Your task to perform on an android device: toggle notification dots Image 0: 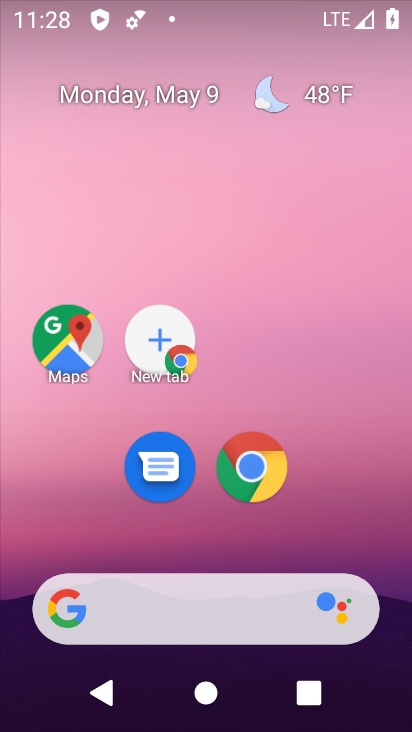
Step 0: drag from (302, 465) to (173, 0)
Your task to perform on an android device: toggle notification dots Image 1: 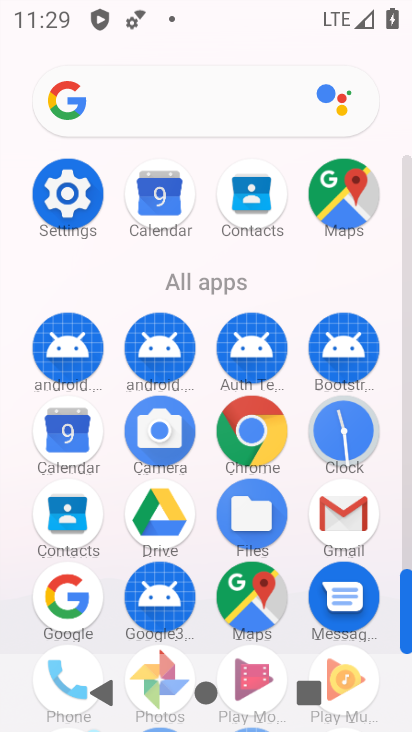
Step 1: click (59, 200)
Your task to perform on an android device: toggle notification dots Image 2: 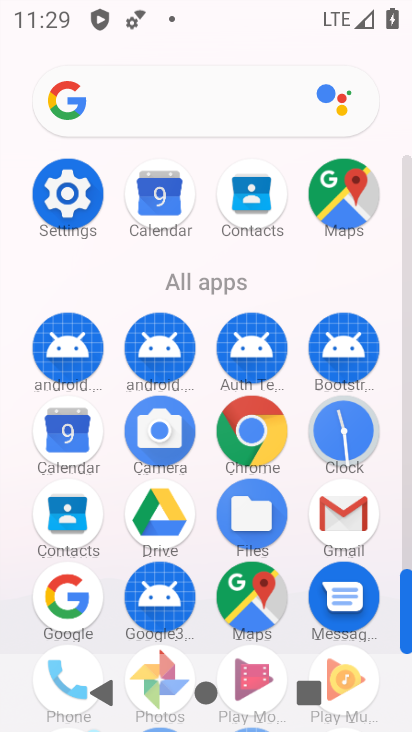
Step 2: click (59, 200)
Your task to perform on an android device: toggle notification dots Image 3: 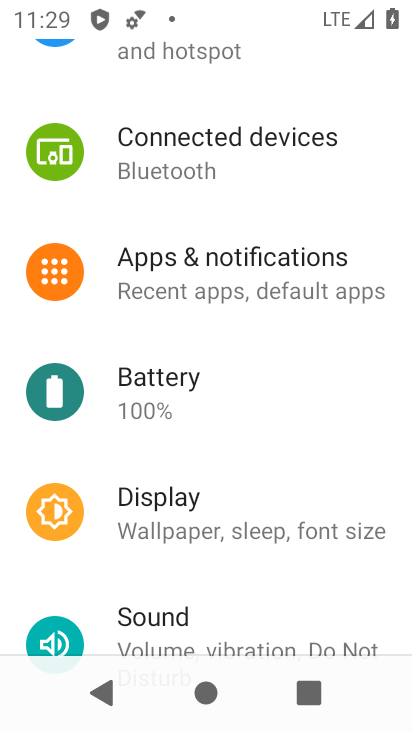
Step 3: click (256, 270)
Your task to perform on an android device: toggle notification dots Image 4: 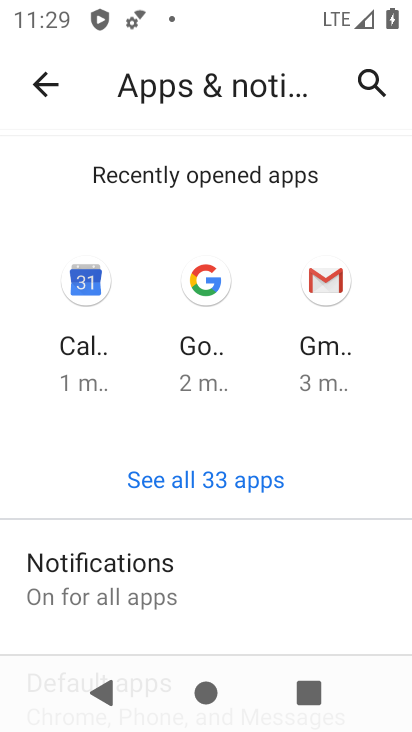
Step 4: click (134, 561)
Your task to perform on an android device: toggle notification dots Image 5: 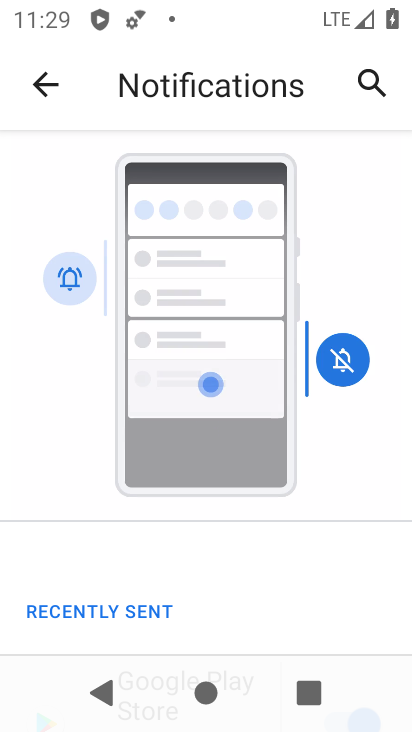
Step 5: drag from (222, 582) to (116, 164)
Your task to perform on an android device: toggle notification dots Image 6: 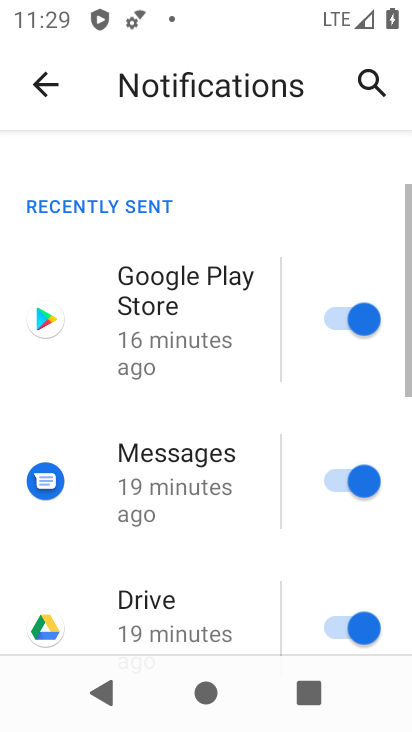
Step 6: click (182, 94)
Your task to perform on an android device: toggle notification dots Image 7: 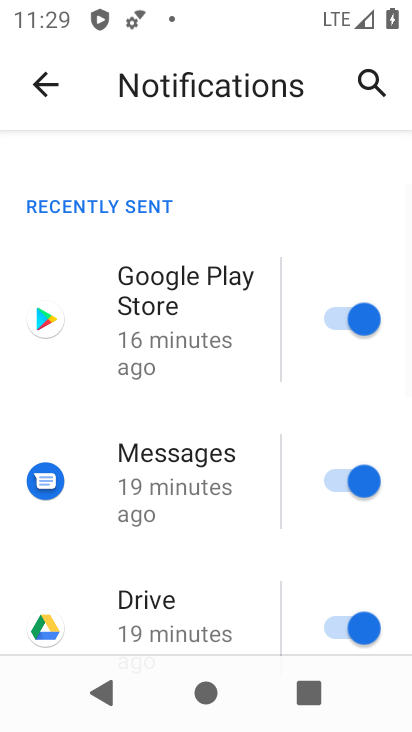
Step 7: click (274, 130)
Your task to perform on an android device: toggle notification dots Image 8: 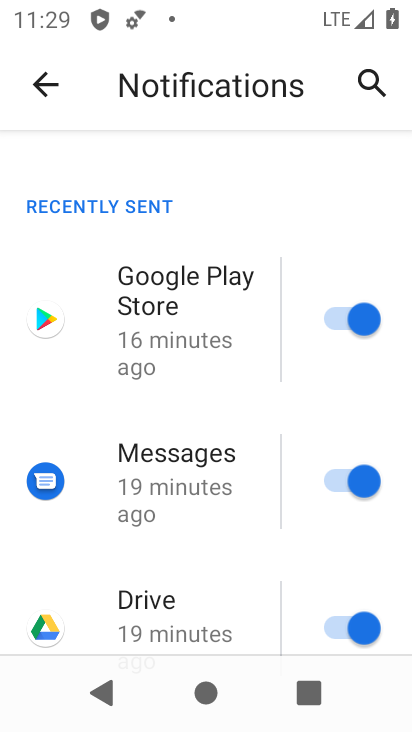
Step 8: drag from (301, 82) to (211, 92)
Your task to perform on an android device: toggle notification dots Image 9: 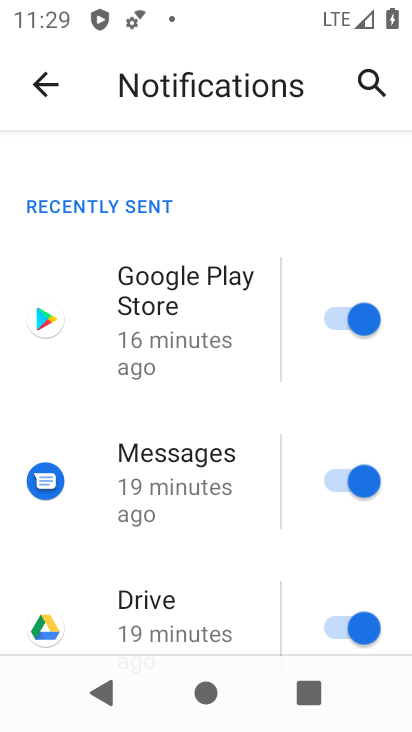
Step 9: drag from (188, 317) to (175, 216)
Your task to perform on an android device: toggle notification dots Image 10: 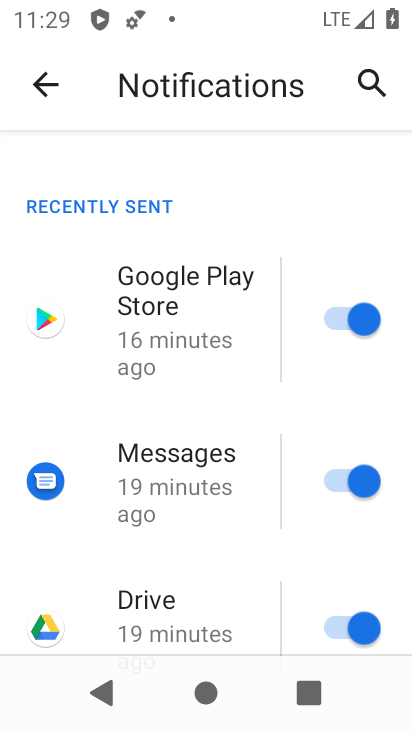
Step 10: drag from (139, 85) to (181, 68)
Your task to perform on an android device: toggle notification dots Image 11: 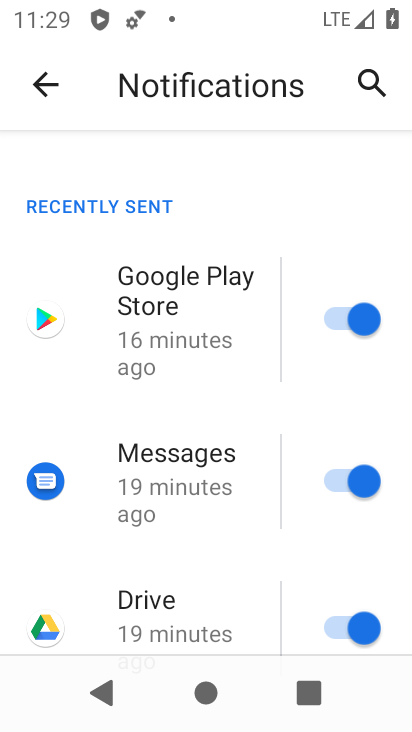
Step 11: drag from (244, 399) to (228, 107)
Your task to perform on an android device: toggle notification dots Image 12: 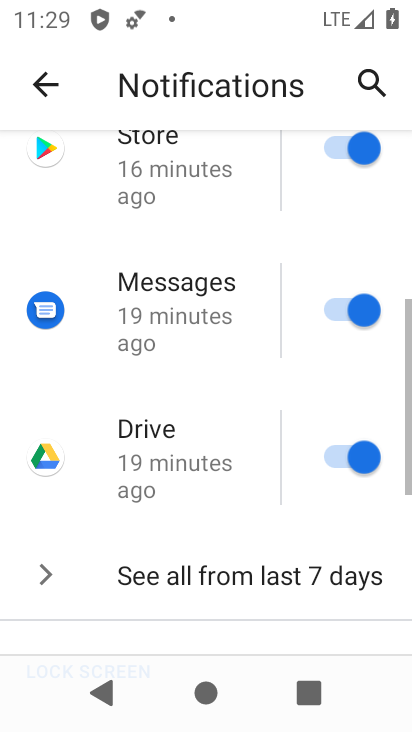
Step 12: drag from (232, 547) to (232, 187)
Your task to perform on an android device: toggle notification dots Image 13: 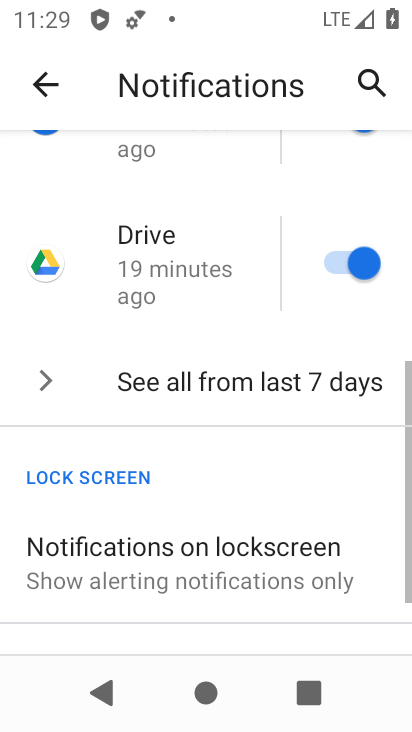
Step 13: drag from (272, 517) to (208, 123)
Your task to perform on an android device: toggle notification dots Image 14: 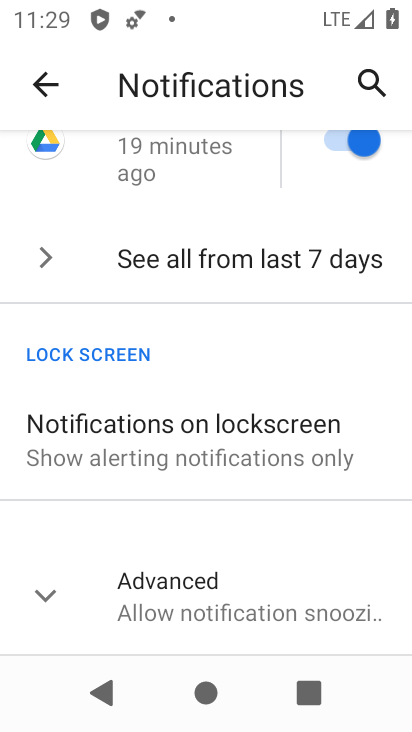
Step 14: click (155, 35)
Your task to perform on an android device: toggle notification dots Image 15: 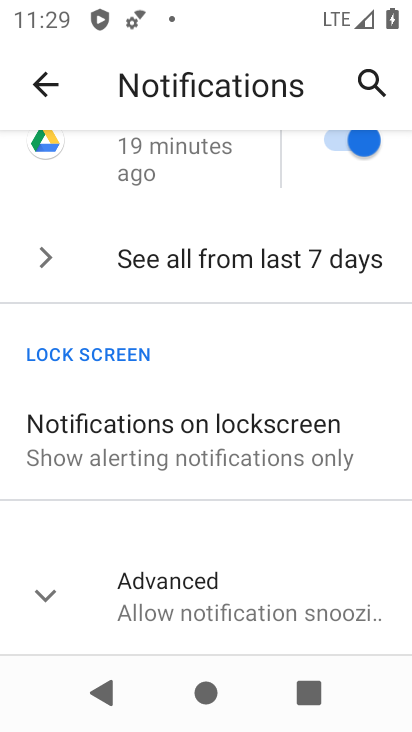
Step 15: drag from (222, 470) to (154, 123)
Your task to perform on an android device: toggle notification dots Image 16: 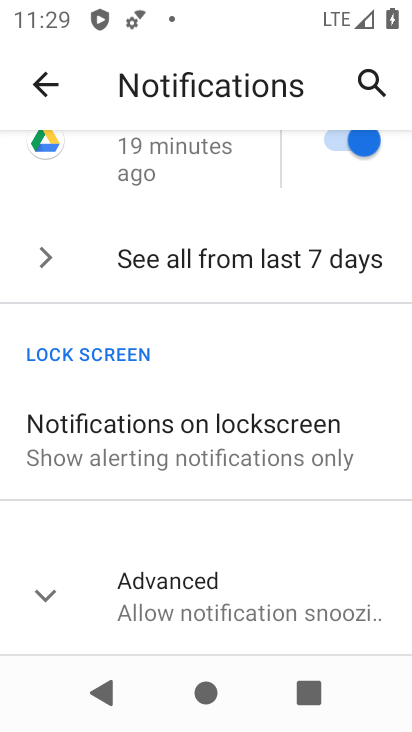
Step 16: click (192, 587)
Your task to perform on an android device: toggle notification dots Image 17: 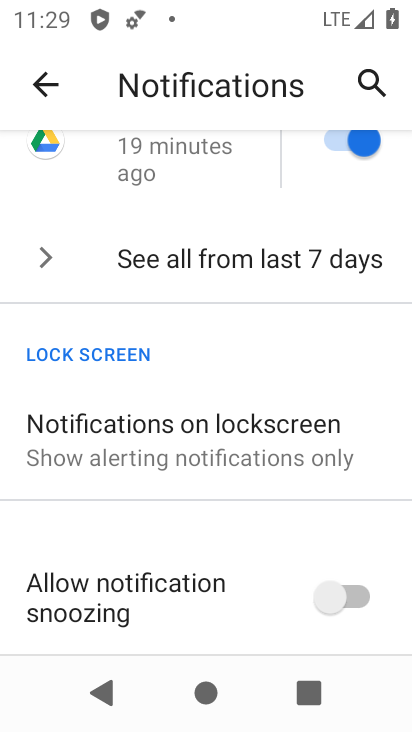
Step 17: drag from (153, 337) to (170, 142)
Your task to perform on an android device: toggle notification dots Image 18: 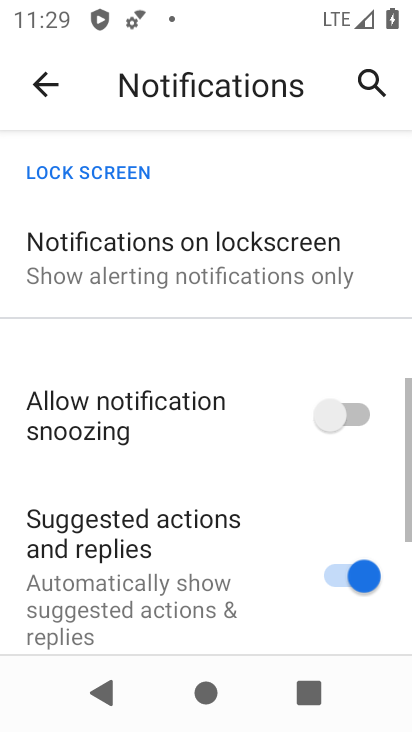
Step 18: drag from (228, 425) to (227, 254)
Your task to perform on an android device: toggle notification dots Image 19: 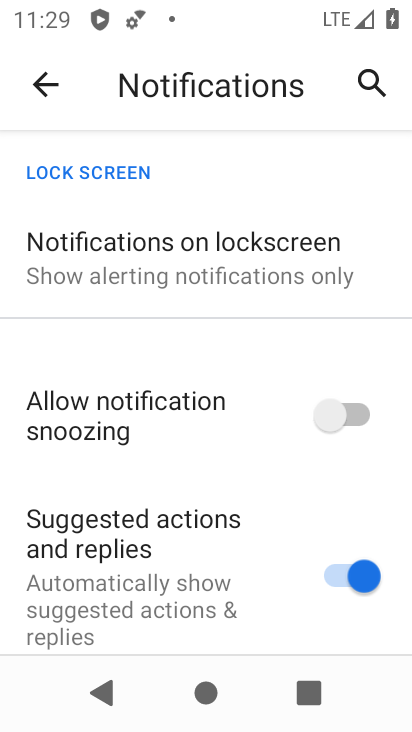
Step 19: click (207, 219)
Your task to perform on an android device: toggle notification dots Image 20: 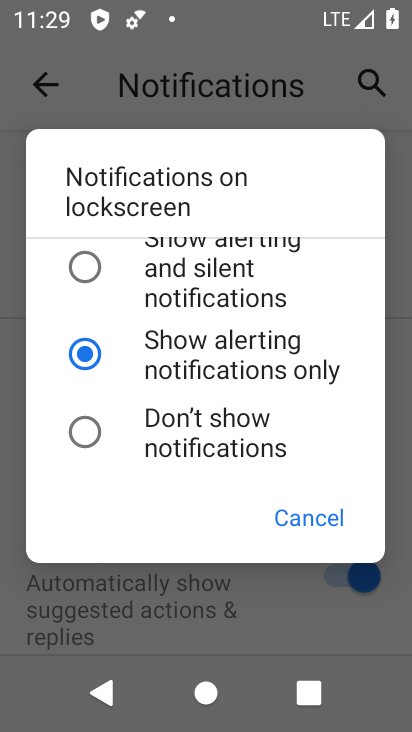
Step 20: click (315, 505)
Your task to perform on an android device: toggle notification dots Image 21: 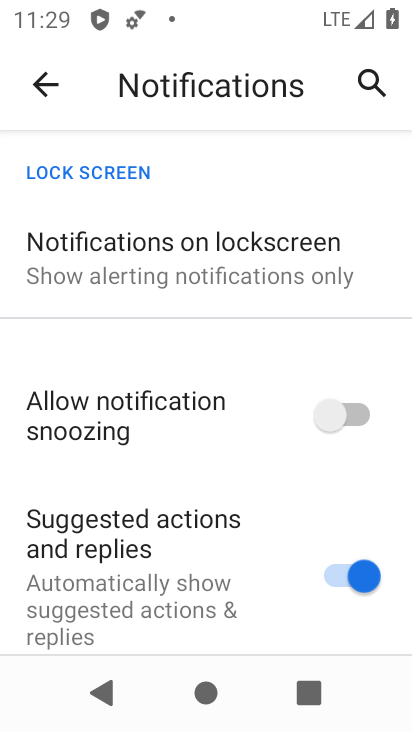
Step 21: drag from (200, 528) to (161, 160)
Your task to perform on an android device: toggle notification dots Image 22: 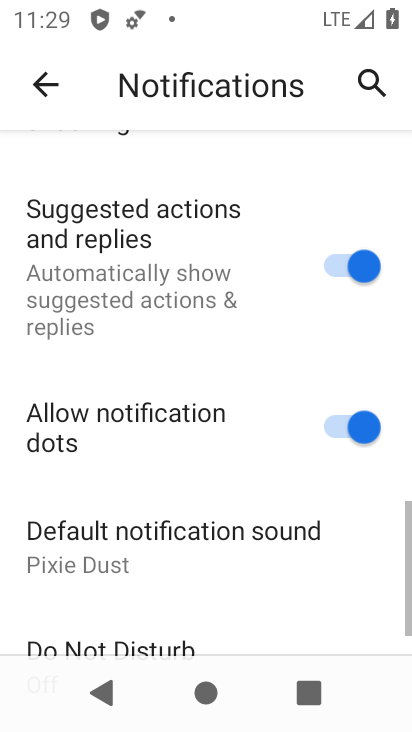
Step 22: drag from (189, 480) to (202, 146)
Your task to perform on an android device: toggle notification dots Image 23: 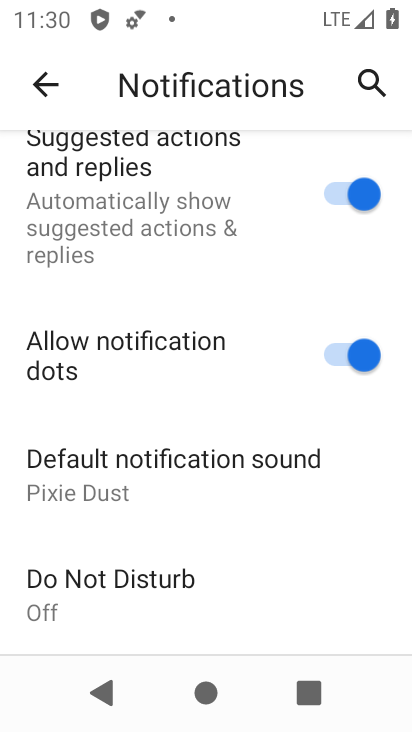
Step 23: click (362, 353)
Your task to perform on an android device: toggle notification dots Image 24: 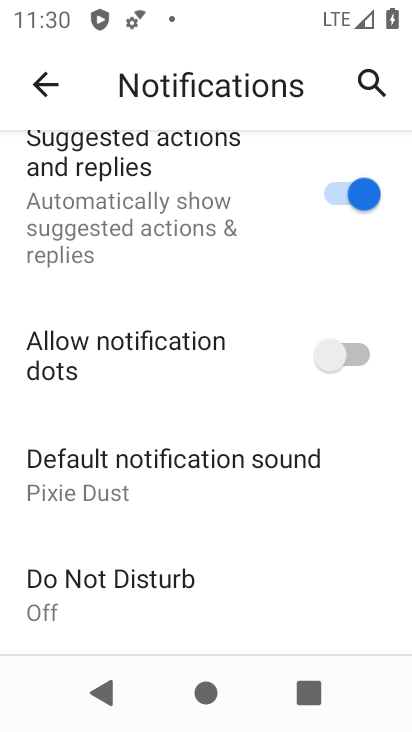
Step 24: task complete